Your task to perform on an android device: see creations saved in the google photos Image 0: 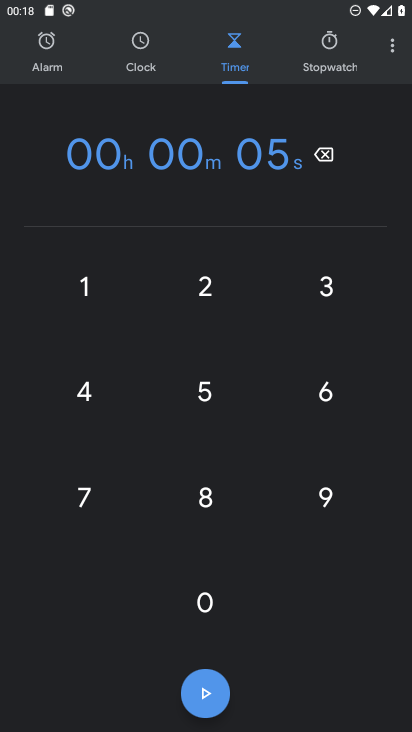
Step 0: press home button
Your task to perform on an android device: see creations saved in the google photos Image 1: 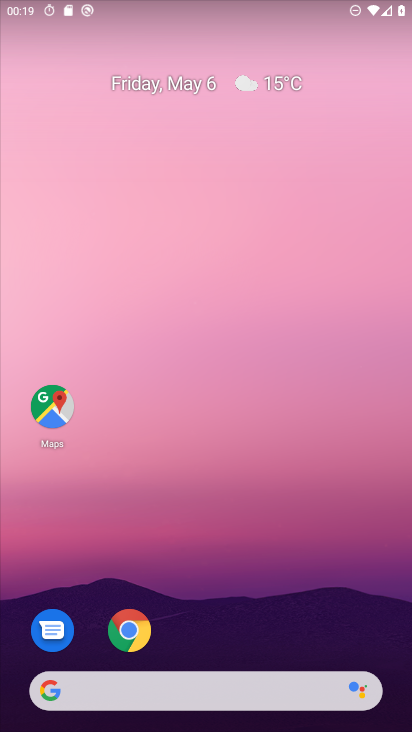
Step 1: drag from (231, 600) to (241, 556)
Your task to perform on an android device: see creations saved in the google photos Image 2: 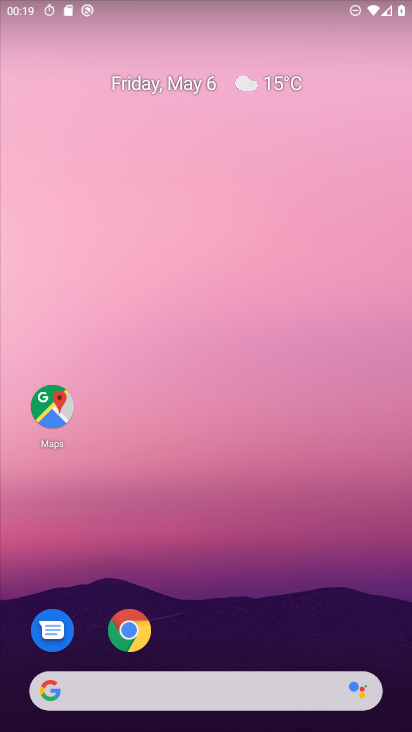
Step 2: drag from (285, 611) to (295, 353)
Your task to perform on an android device: see creations saved in the google photos Image 3: 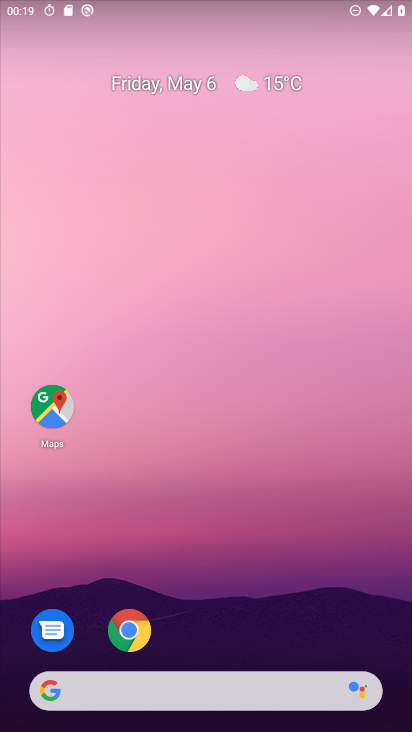
Step 3: drag from (327, 412) to (322, 312)
Your task to perform on an android device: see creations saved in the google photos Image 4: 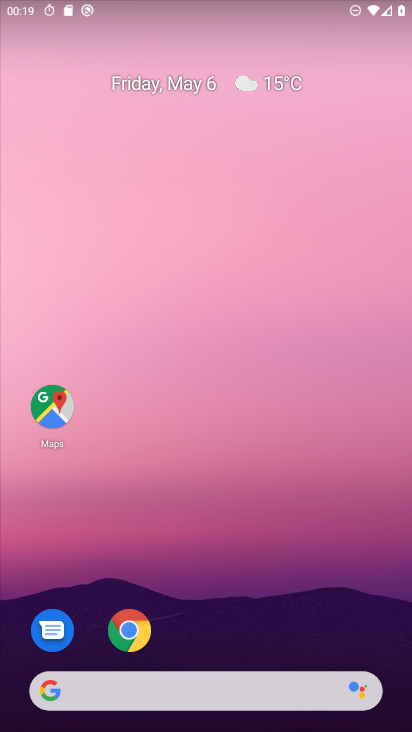
Step 4: drag from (268, 509) to (277, 115)
Your task to perform on an android device: see creations saved in the google photos Image 5: 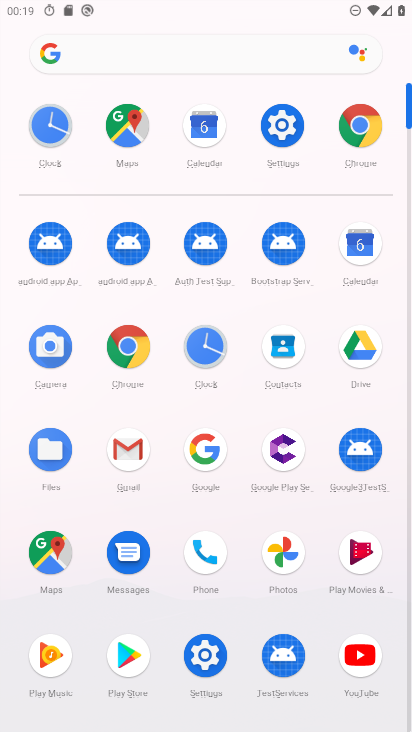
Step 5: click (289, 540)
Your task to perform on an android device: see creations saved in the google photos Image 6: 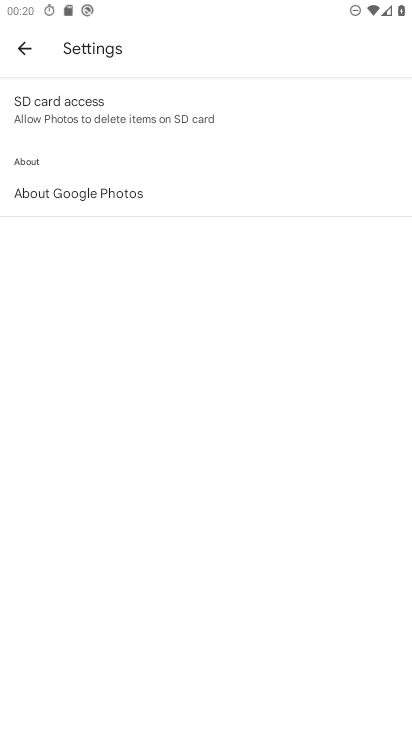
Step 6: click (16, 59)
Your task to perform on an android device: see creations saved in the google photos Image 7: 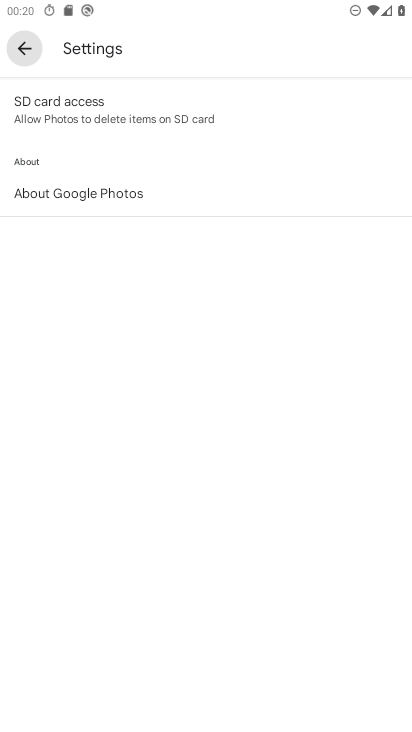
Step 7: click (18, 51)
Your task to perform on an android device: see creations saved in the google photos Image 8: 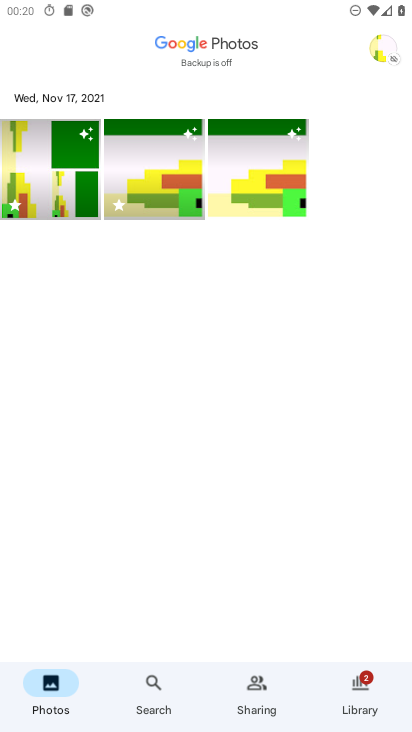
Step 8: click (358, 702)
Your task to perform on an android device: see creations saved in the google photos Image 9: 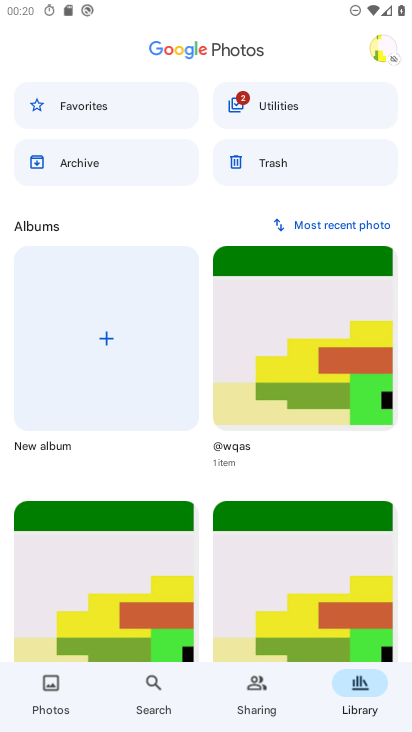
Step 9: drag from (190, 297) to (197, 600)
Your task to perform on an android device: see creations saved in the google photos Image 10: 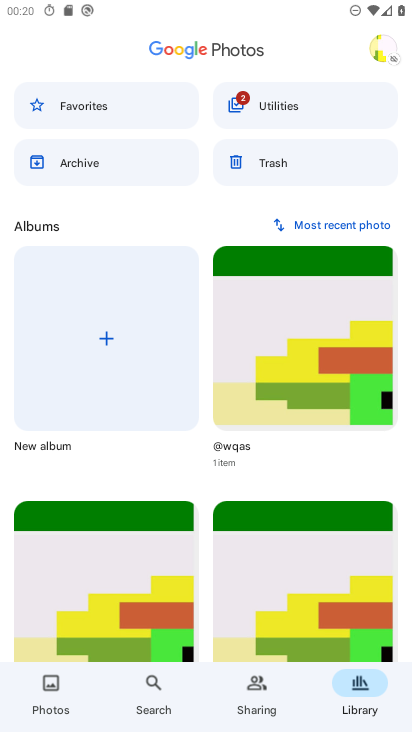
Step 10: click (256, 685)
Your task to perform on an android device: see creations saved in the google photos Image 11: 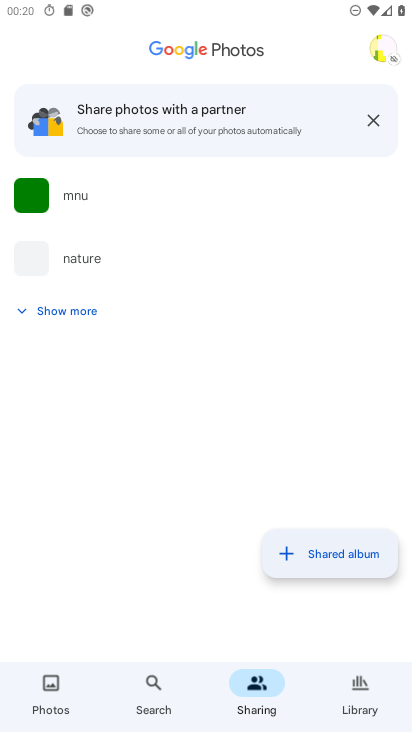
Step 11: click (44, 702)
Your task to perform on an android device: see creations saved in the google photos Image 12: 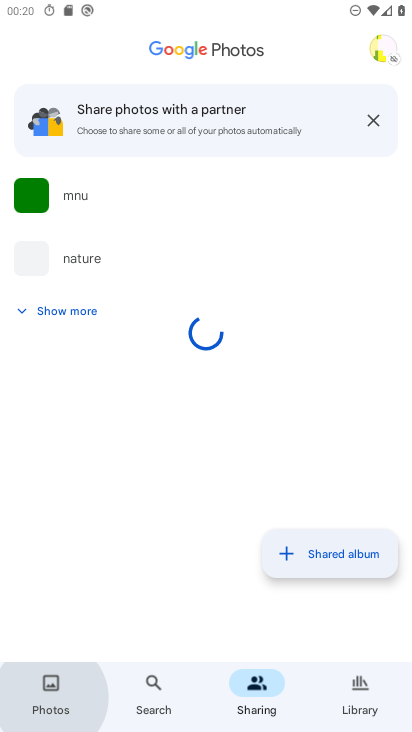
Step 12: click (45, 701)
Your task to perform on an android device: see creations saved in the google photos Image 13: 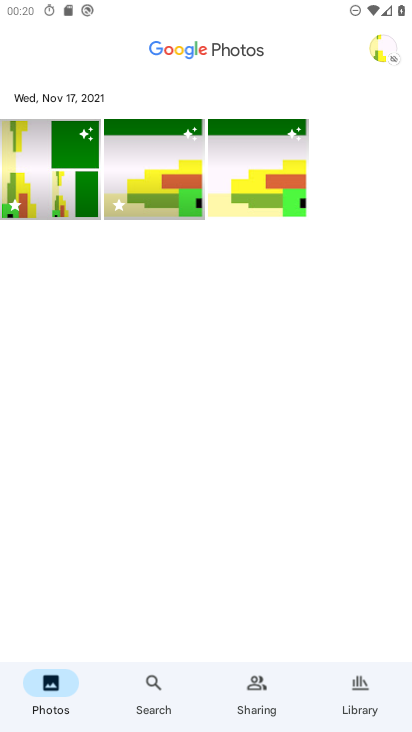
Step 13: task complete